Your task to perform on an android device: toggle javascript in the chrome app Image 0: 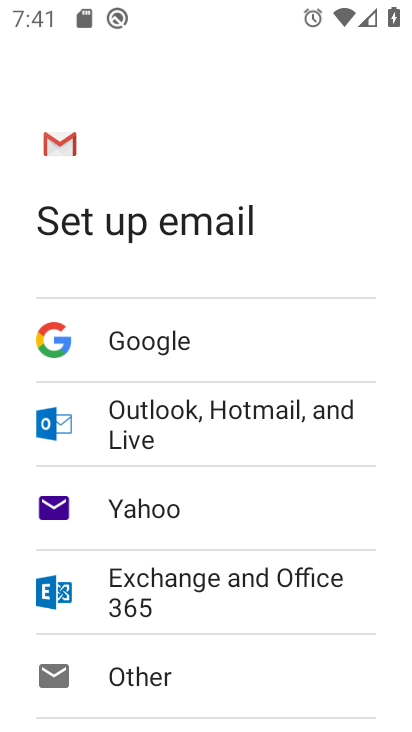
Step 0: press home button
Your task to perform on an android device: toggle javascript in the chrome app Image 1: 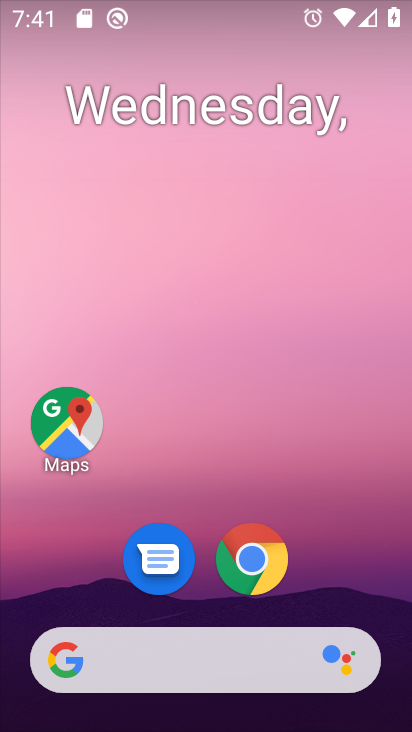
Step 1: drag from (346, 590) to (342, 147)
Your task to perform on an android device: toggle javascript in the chrome app Image 2: 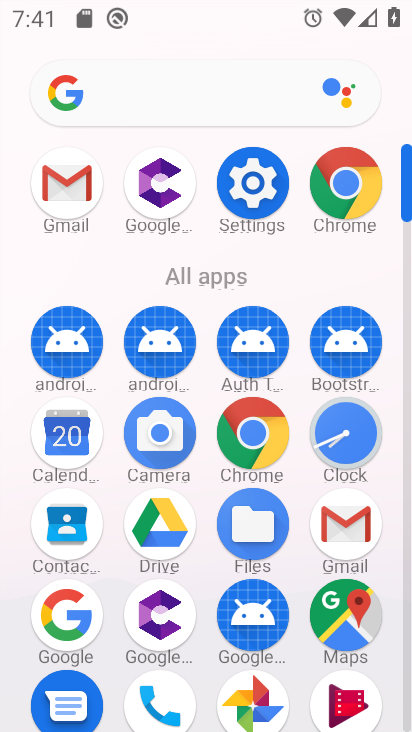
Step 2: drag from (388, 587) to (370, 267)
Your task to perform on an android device: toggle javascript in the chrome app Image 3: 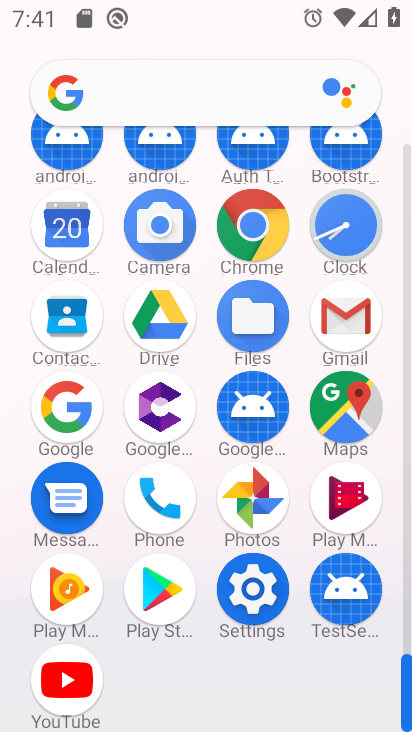
Step 3: click (256, 598)
Your task to perform on an android device: toggle javascript in the chrome app Image 4: 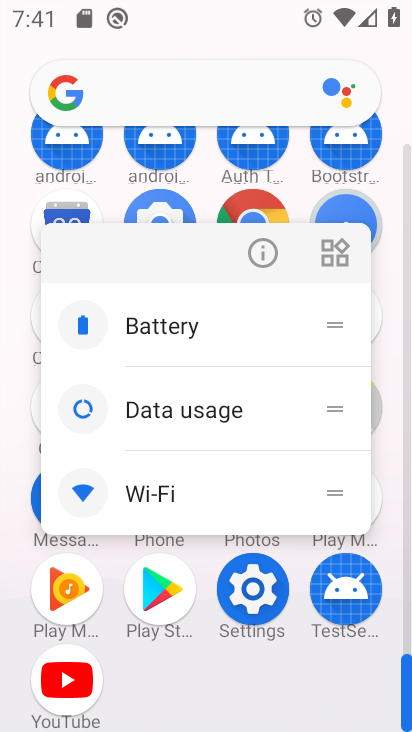
Step 4: click (256, 598)
Your task to perform on an android device: toggle javascript in the chrome app Image 5: 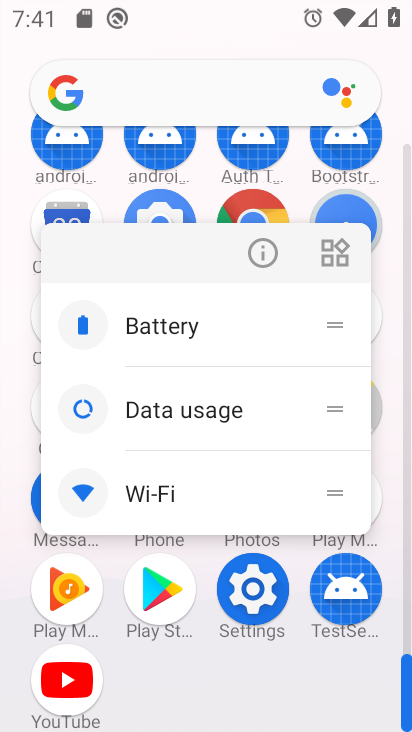
Step 5: click (254, 599)
Your task to perform on an android device: toggle javascript in the chrome app Image 6: 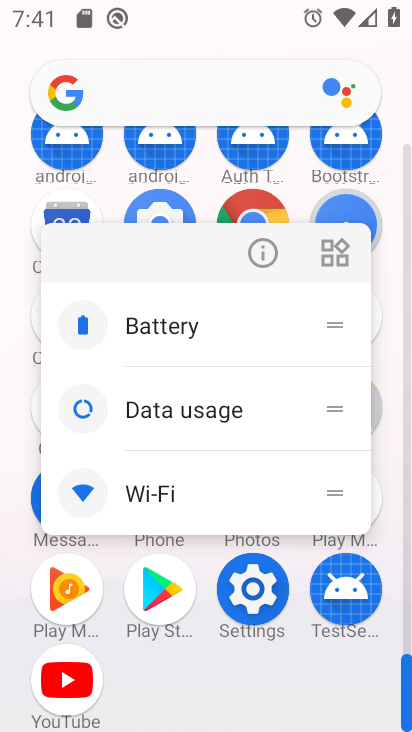
Step 6: click (254, 595)
Your task to perform on an android device: toggle javascript in the chrome app Image 7: 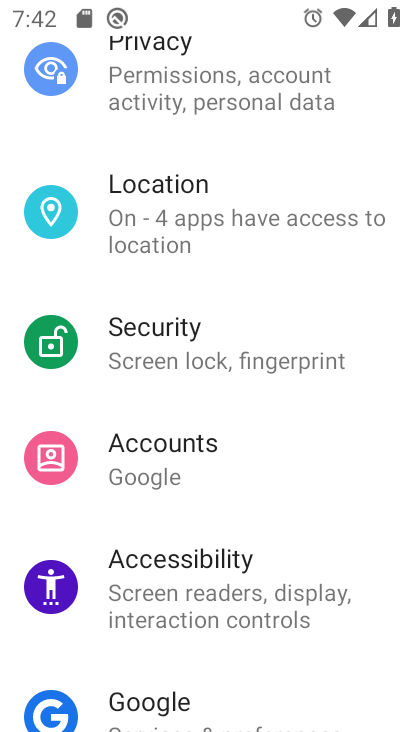
Step 7: drag from (306, 164) to (311, 673)
Your task to perform on an android device: toggle javascript in the chrome app Image 8: 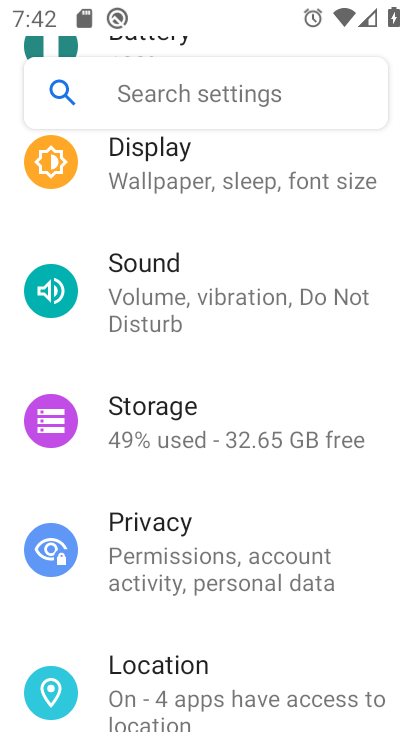
Step 8: press home button
Your task to perform on an android device: toggle javascript in the chrome app Image 9: 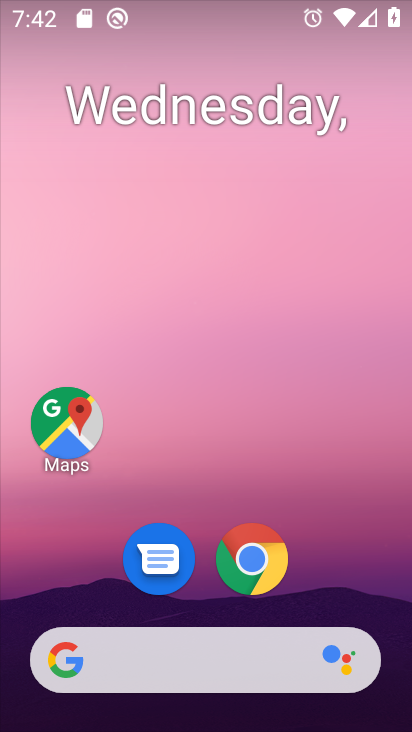
Step 9: drag from (386, 580) to (353, 106)
Your task to perform on an android device: toggle javascript in the chrome app Image 10: 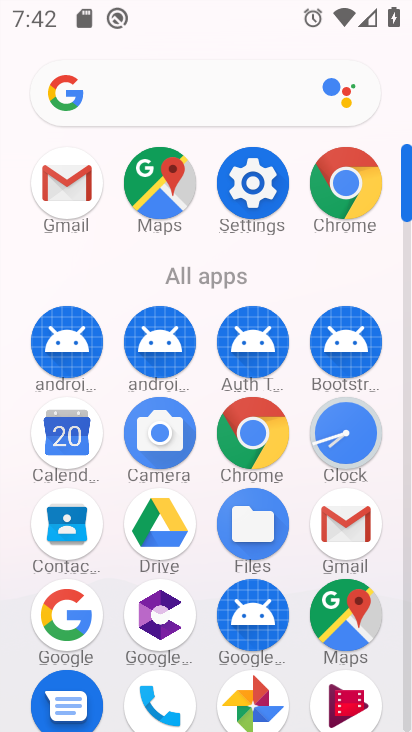
Step 10: click (364, 168)
Your task to perform on an android device: toggle javascript in the chrome app Image 11: 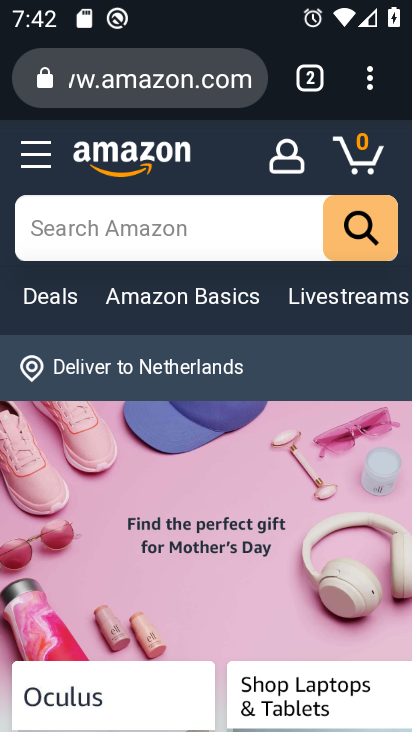
Step 11: drag from (368, 99) to (271, 628)
Your task to perform on an android device: toggle javascript in the chrome app Image 12: 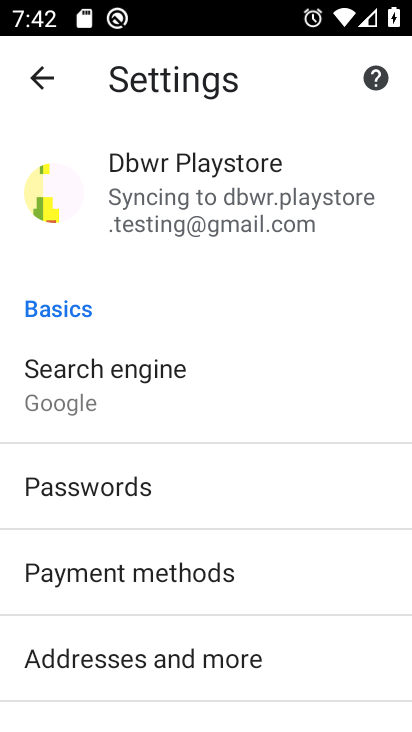
Step 12: drag from (313, 640) to (313, 332)
Your task to perform on an android device: toggle javascript in the chrome app Image 13: 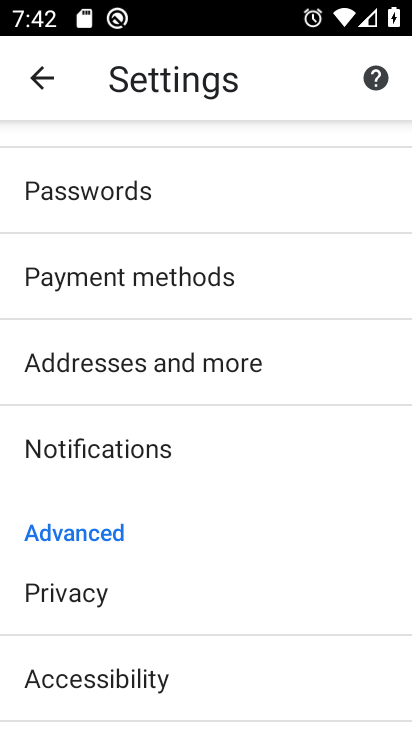
Step 13: drag from (301, 671) to (315, 276)
Your task to perform on an android device: toggle javascript in the chrome app Image 14: 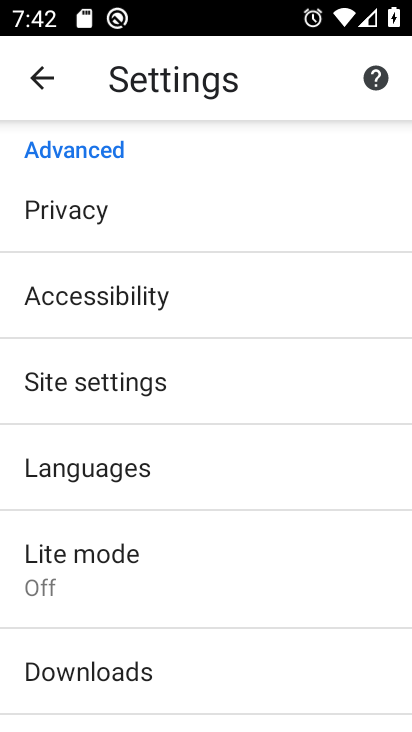
Step 14: click (171, 390)
Your task to perform on an android device: toggle javascript in the chrome app Image 15: 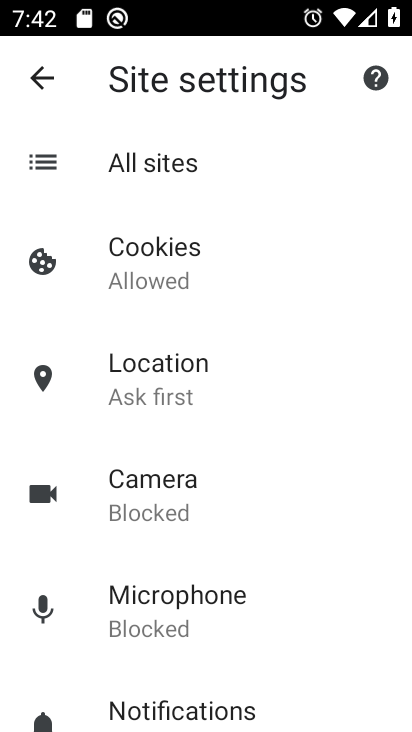
Step 15: drag from (262, 640) to (262, 342)
Your task to perform on an android device: toggle javascript in the chrome app Image 16: 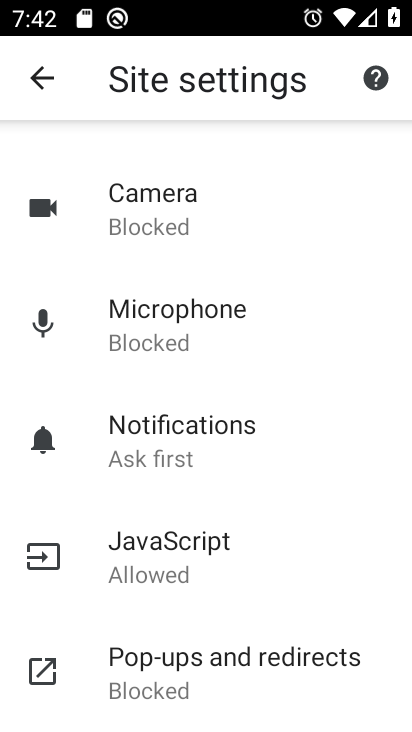
Step 16: click (197, 514)
Your task to perform on an android device: toggle javascript in the chrome app Image 17: 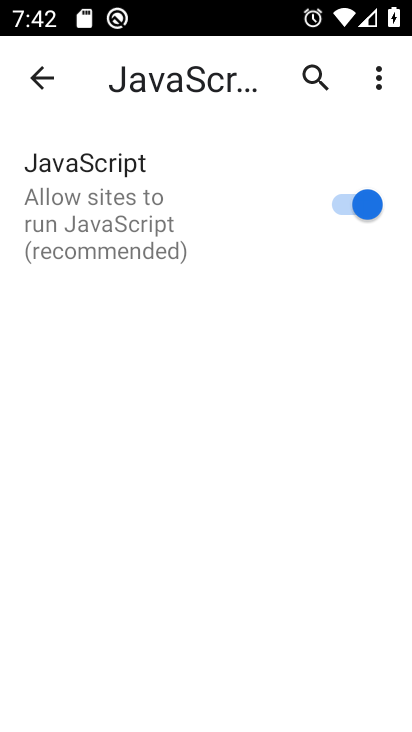
Step 17: click (340, 204)
Your task to perform on an android device: toggle javascript in the chrome app Image 18: 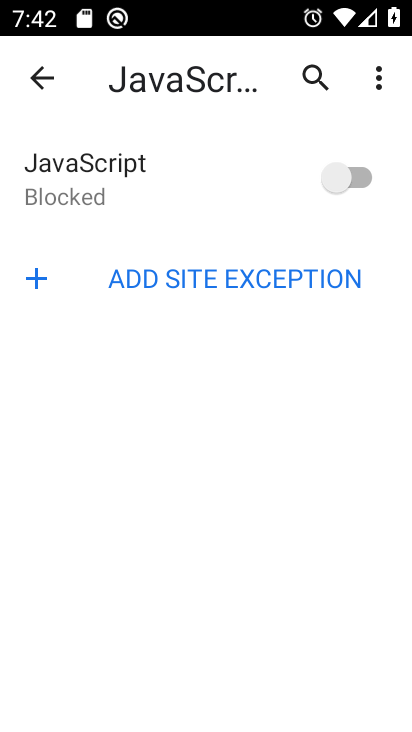
Step 18: task complete